Your task to perform on an android device: Play the last video I watched on Youtube Image 0: 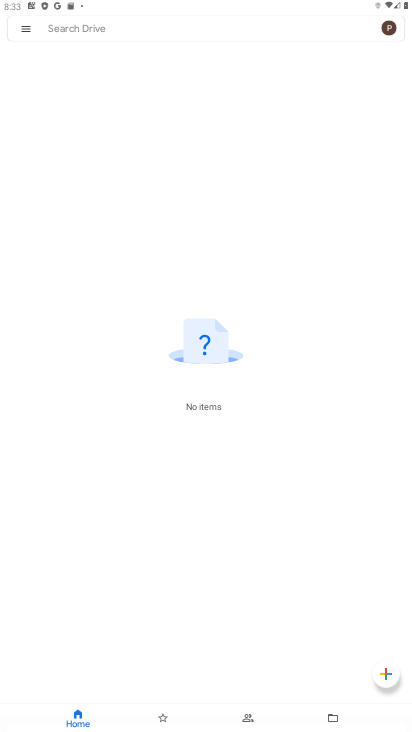
Step 0: press home button
Your task to perform on an android device: Play the last video I watched on Youtube Image 1: 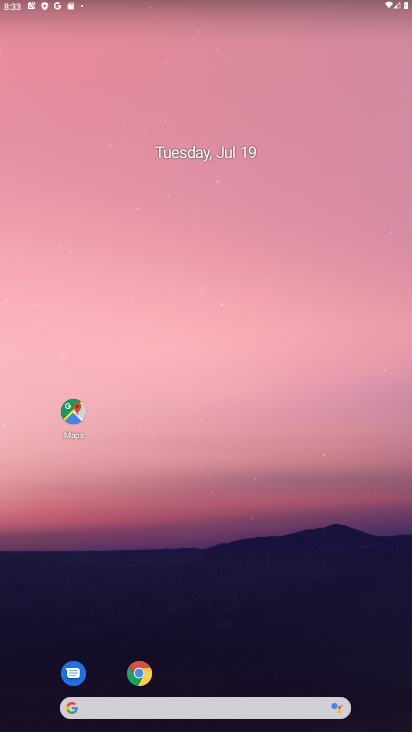
Step 1: drag from (255, 653) to (224, 83)
Your task to perform on an android device: Play the last video I watched on Youtube Image 2: 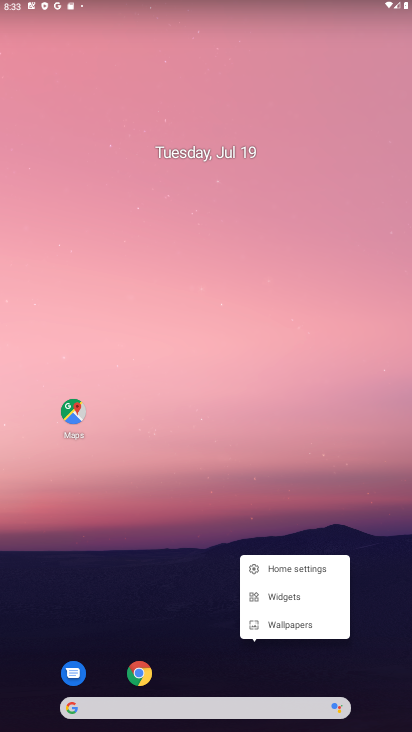
Step 2: click (196, 482)
Your task to perform on an android device: Play the last video I watched on Youtube Image 3: 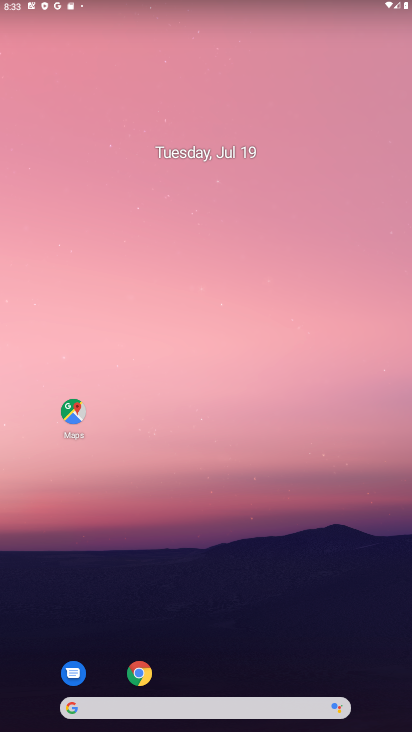
Step 3: drag from (233, 667) to (313, 123)
Your task to perform on an android device: Play the last video I watched on Youtube Image 4: 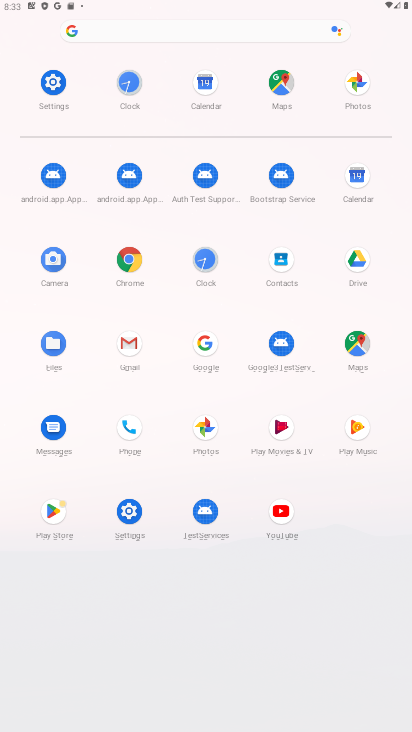
Step 4: click (294, 509)
Your task to perform on an android device: Play the last video I watched on Youtube Image 5: 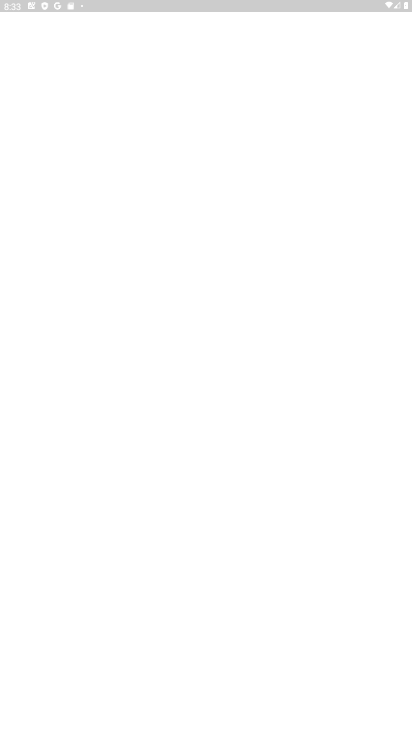
Step 5: task complete